Your task to perform on an android device: see tabs open on other devices in the chrome app Image 0: 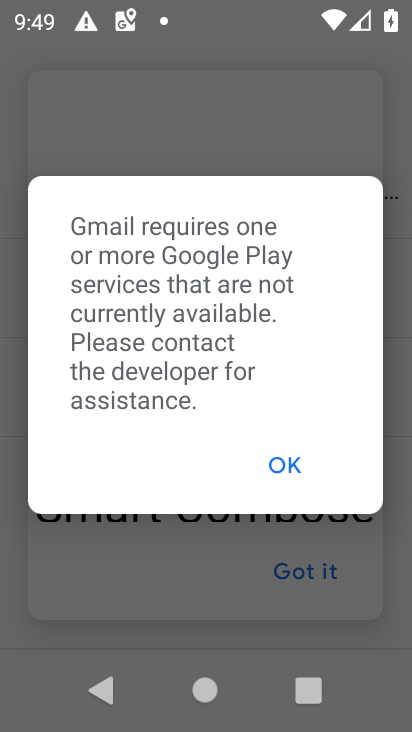
Step 0: press home button
Your task to perform on an android device: see tabs open on other devices in the chrome app Image 1: 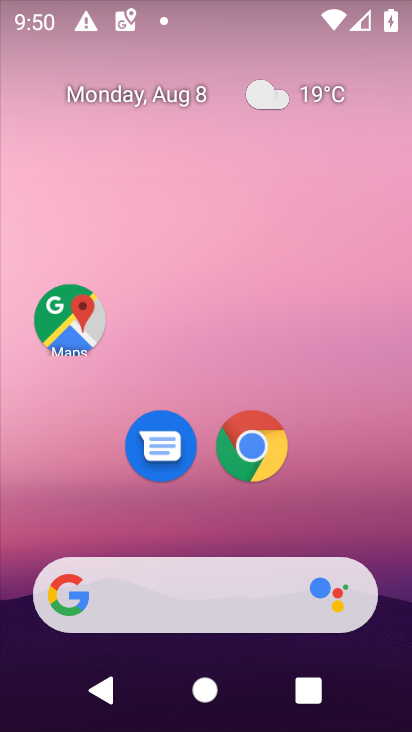
Step 1: click (247, 442)
Your task to perform on an android device: see tabs open on other devices in the chrome app Image 2: 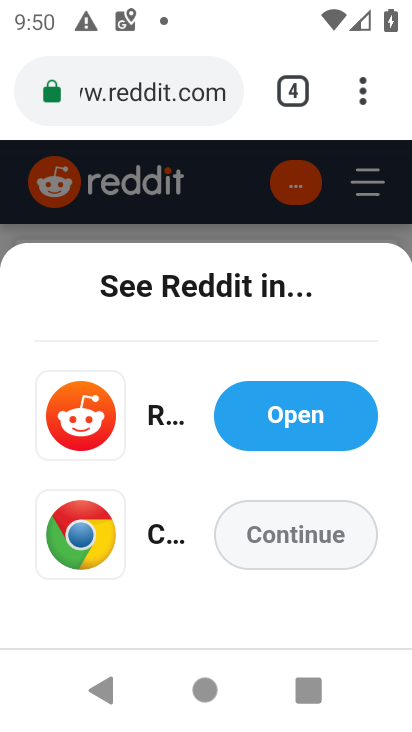
Step 2: click (356, 104)
Your task to perform on an android device: see tabs open on other devices in the chrome app Image 3: 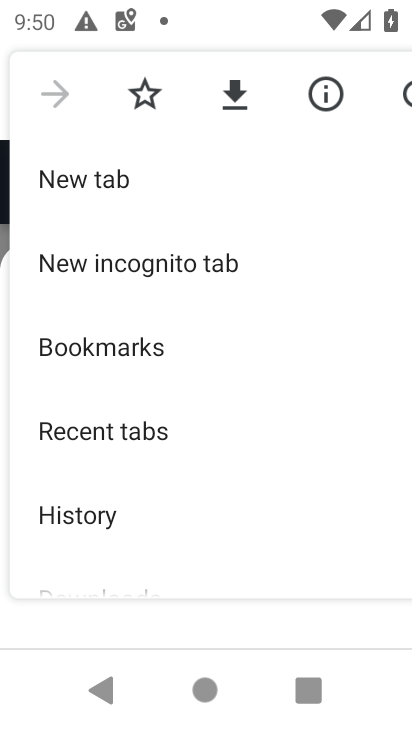
Step 3: click (108, 433)
Your task to perform on an android device: see tabs open on other devices in the chrome app Image 4: 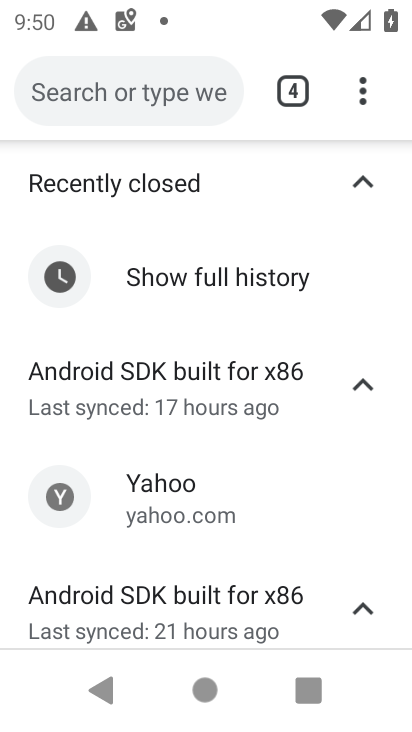
Step 4: task complete